Your task to perform on an android device: Open notification settings Image 0: 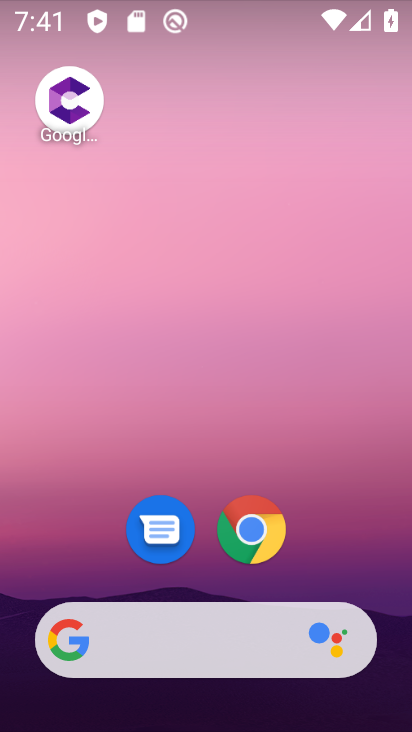
Step 0: drag from (367, 543) to (348, 331)
Your task to perform on an android device: Open notification settings Image 1: 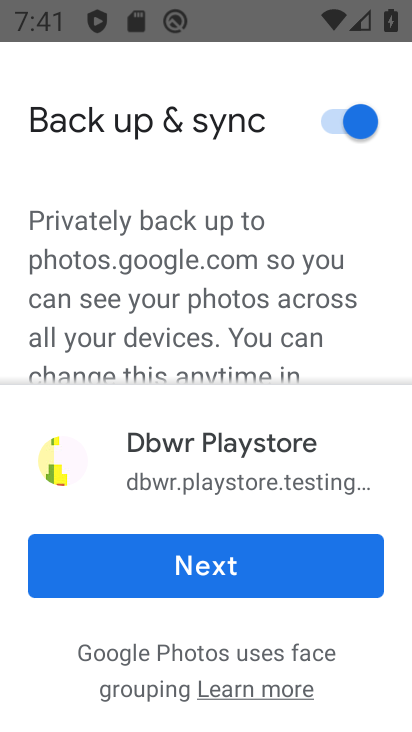
Step 1: press home button
Your task to perform on an android device: Open notification settings Image 2: 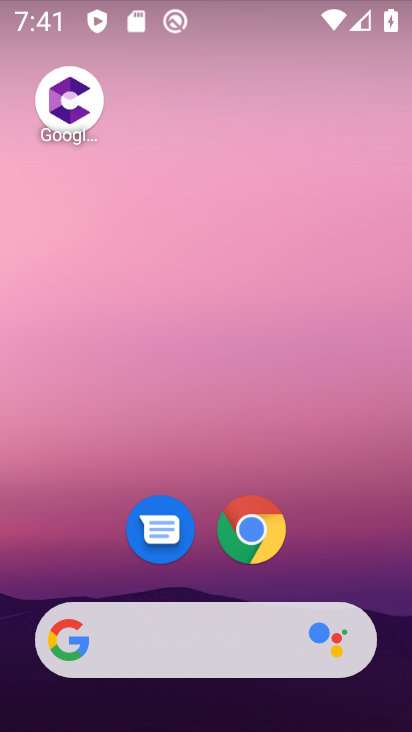
Step 2: drag from (372, 544) to (295, 1)
Your task to perform on an android device: Open notification settings Image 3: 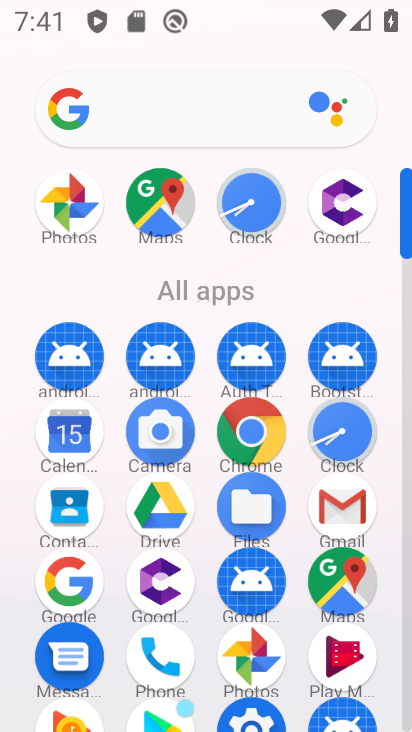
Step 3: drag from (309, 302) to (259, 1)
Your task to perform on an android device: Open notification settings Image 4: 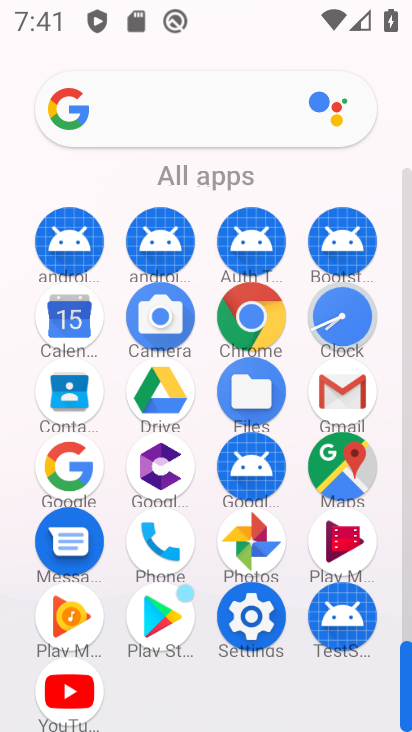
Step 4: click (244, 628)
Your task to perform on an android device: Open notification settings Image 5: 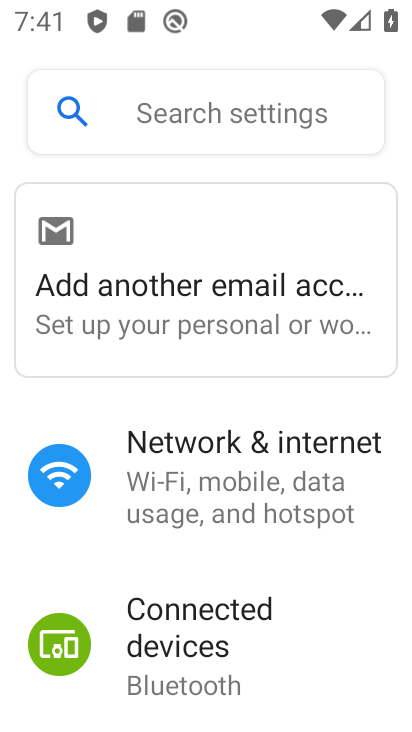
Step 5: drag from (206, 577) to (154, 316)
Your task to perform on an android device: Open notification settings Image 6: 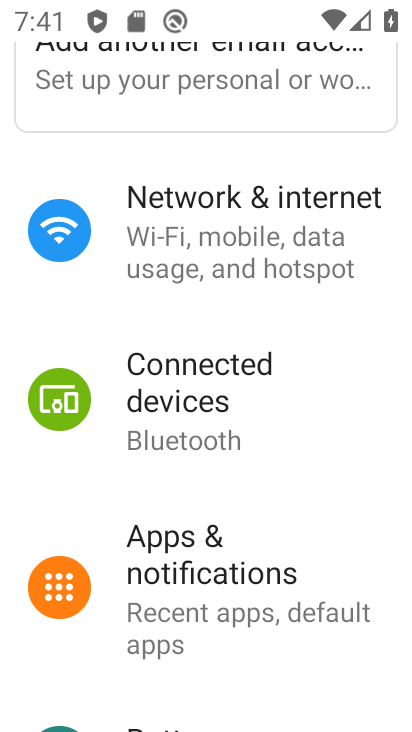
Step 6: click (218, 569)
Your task to perform on an android device: Open notification settings Image 7: 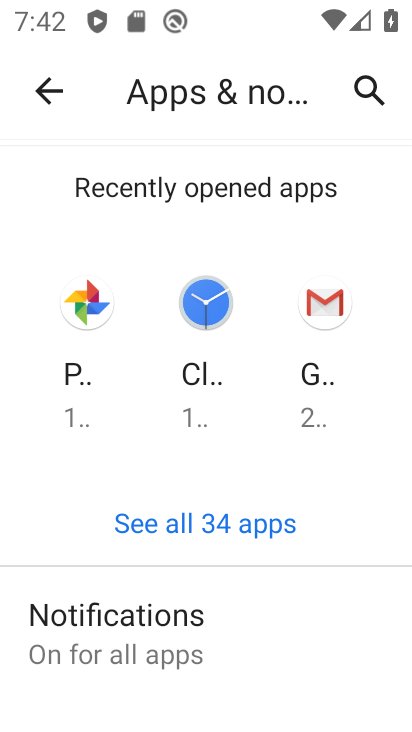
Step 7: click (213, 615)
Your task to perform on an android device: Open notification settings Image 8: 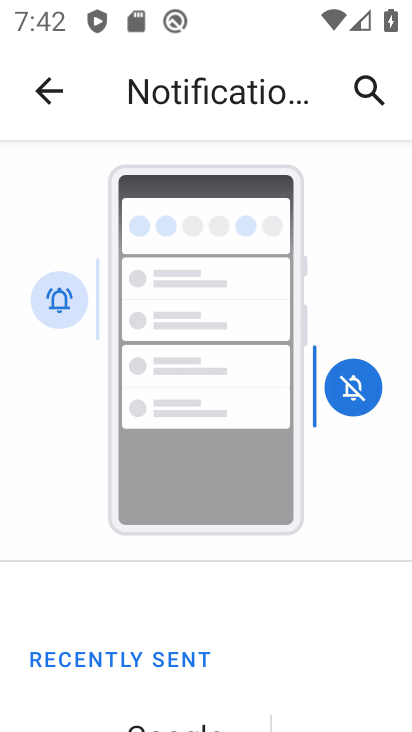
Step 8: task complete